Your task to perform on an android device: turn off picture-in-picture Image 0: 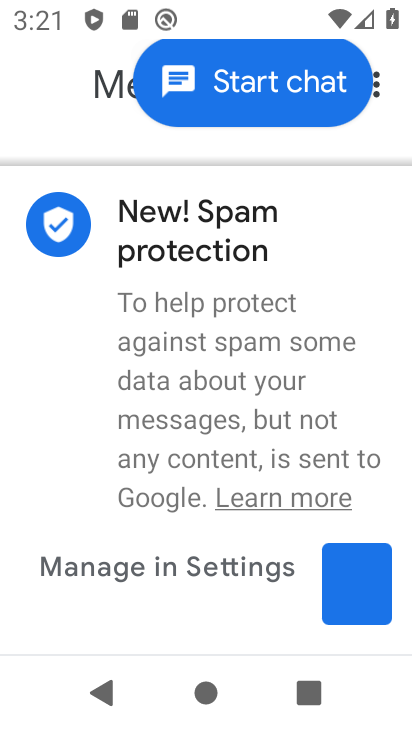
Step 0: press home button
Your task to perform on an android device: turn off picture-in-picture Image 1: 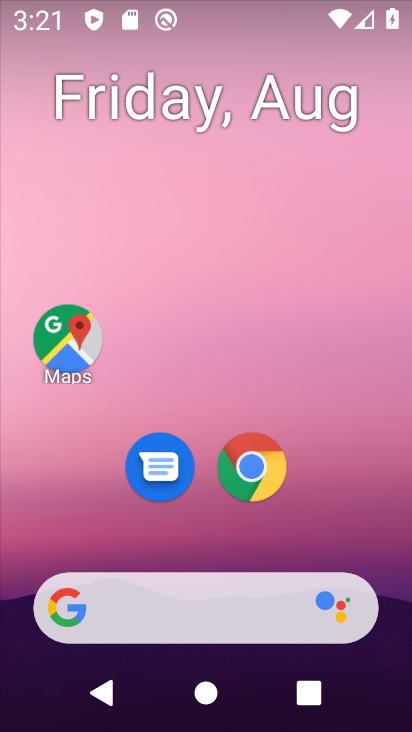
Step 1: click (252, 461)
Your task to perform on an android device: turn off picture-in-picture Image 2: 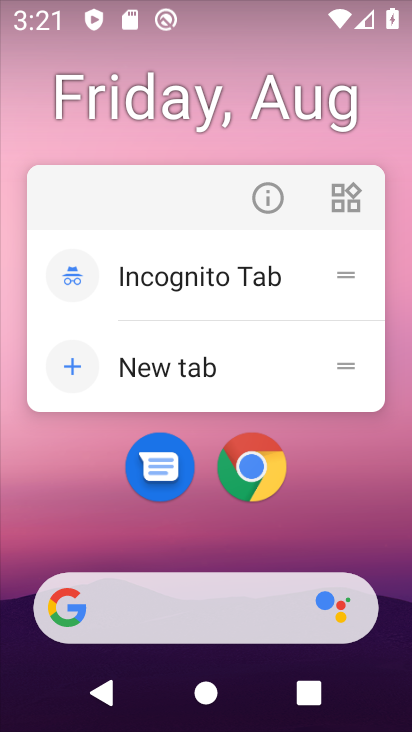
Step 2: click (268, 187)
Your task to perform on an android device: turn off picture-in-picture Image 3: 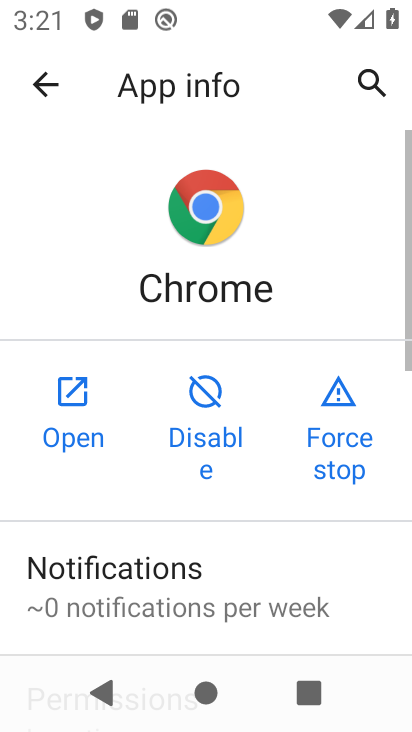
Step 3: drag from (240, 588) to (254, 179)
Your task to perform on an android device: turn off picture-in-picture Image 4: 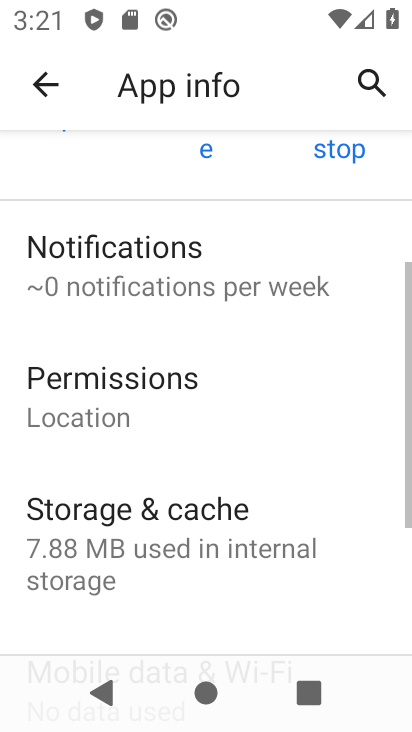
Step 4: drag from (194, 589) to (207, 150)
Your task to perform on an android device: turn off picture-in-picture Image 5: 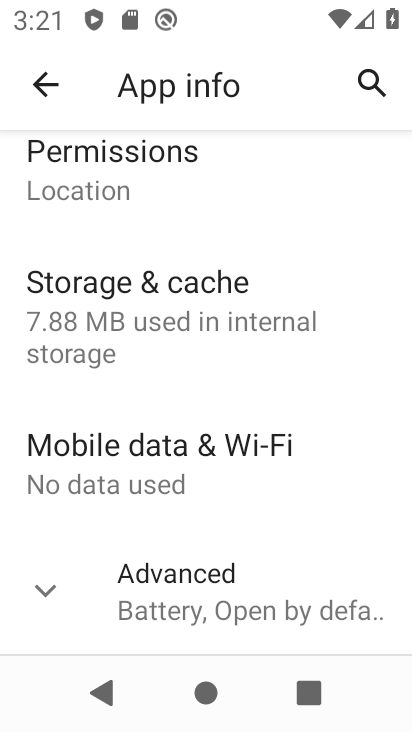
Step 5: click (189, 608)
Your task to perform on an android device: turn off picture-in-picture Image 6: 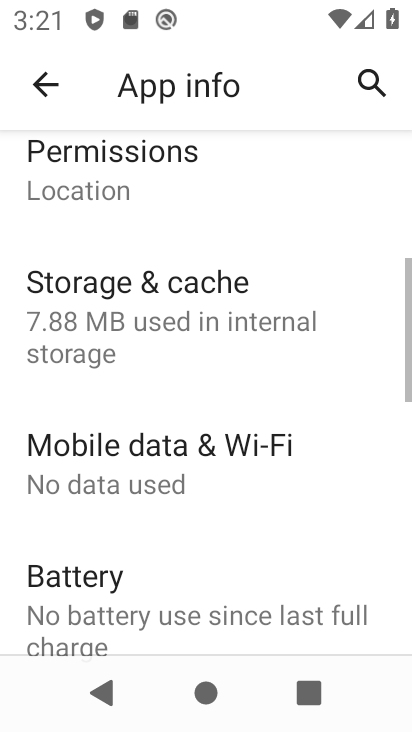
Step 6: drag from (241, 563) to (261, 75)
Your task to perform on an android device: turn off picture-in-picture Image 7: 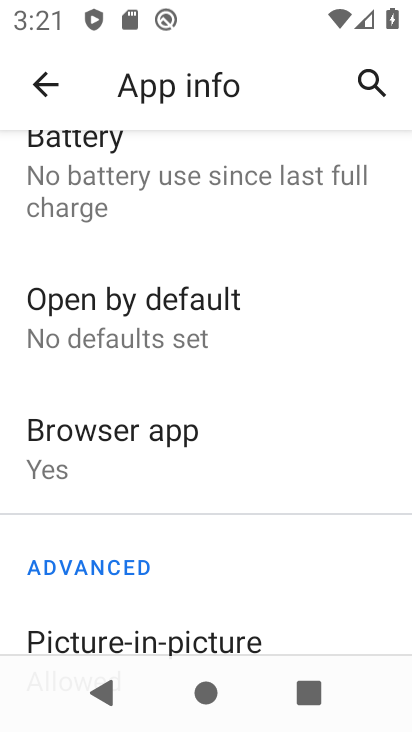
Step 7: drag from (183, 564) to (214, 233)
Your task to perform on an android device: turn off picture-in-picture Image 8: 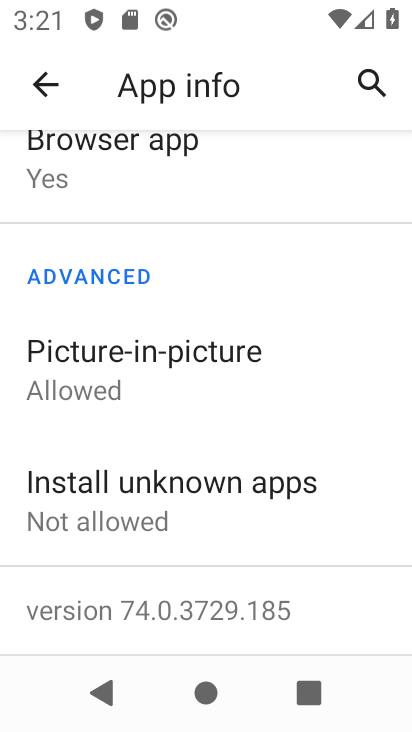
Step 8: click (56, 366)
Your task to perform on an android device: turn off picture-in-picture Image 9: 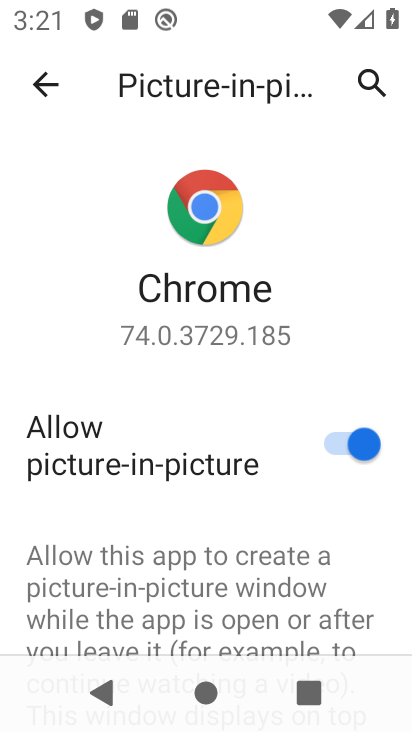
Step 9: click (333, 435)
Your task to perform on an android device: turn off picture-in-picture Image 10: 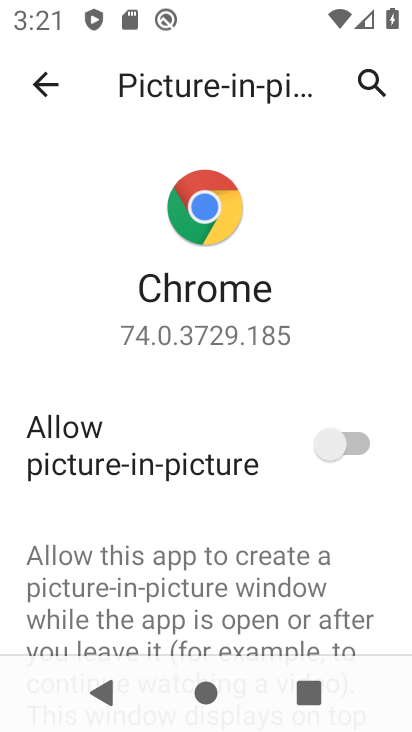
Step 10: task complete